Your task to perform on an android device: set the timer Image 0: 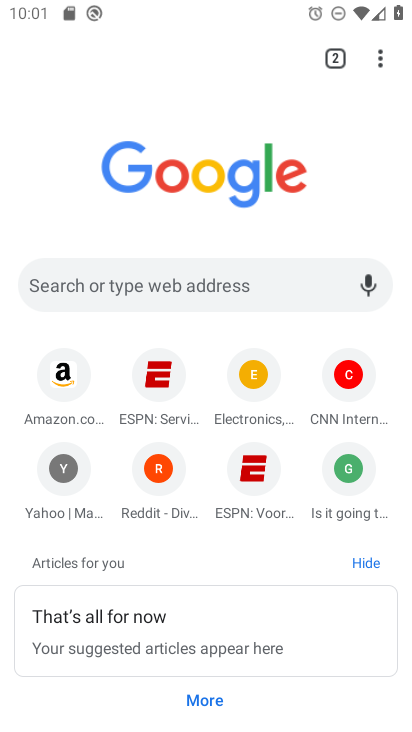
Step 0: press home button
Your task to perform on an android device: set the timer Image 1: 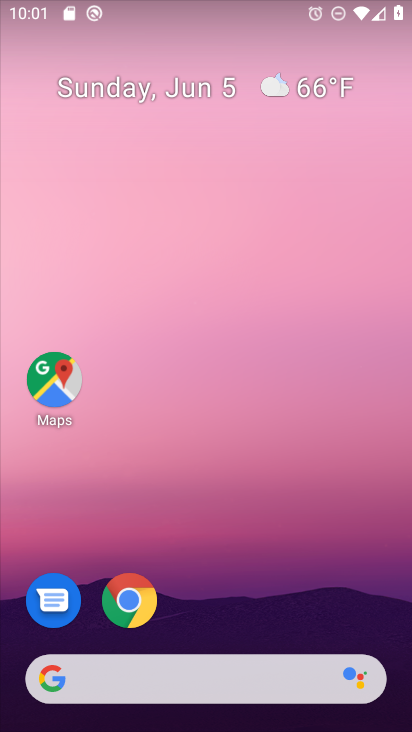
Step 1: drag from (339, 587) to (264, 17)
Your task to perform on an android device: set the timer Image 2: 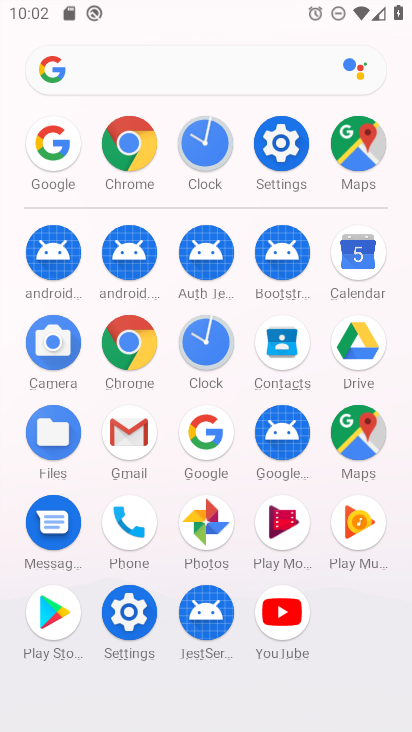
Step 2: click (185, 370)
Your task to perform on an android device: set the timer Image 3: 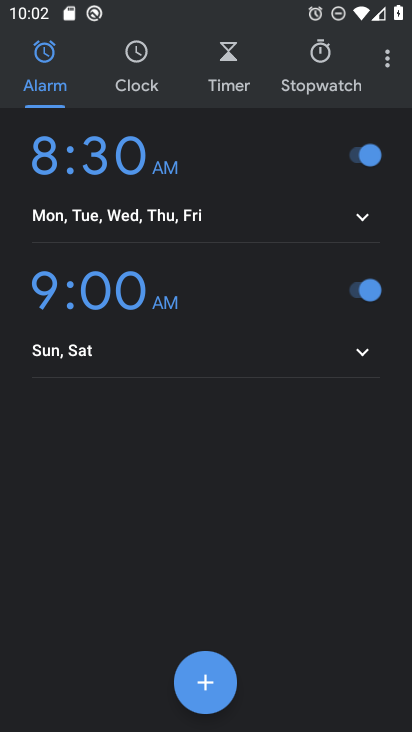
Step 3: click (394, 50)
Your task to perform on an android device: set the timer Image 4: 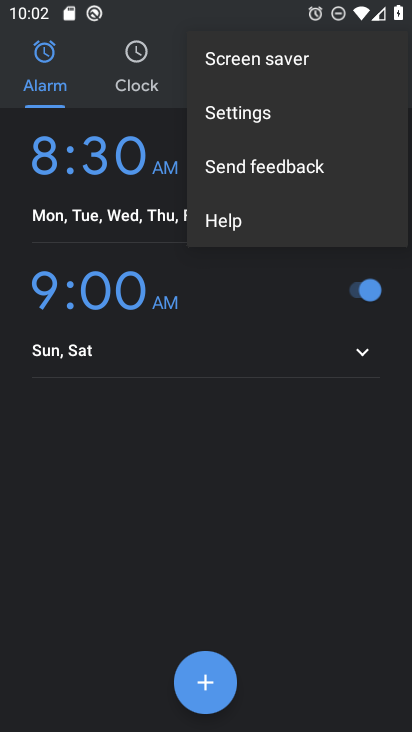
Step 4: click (271, 119)
Your task to perform on an android device: set the timer Image 5: 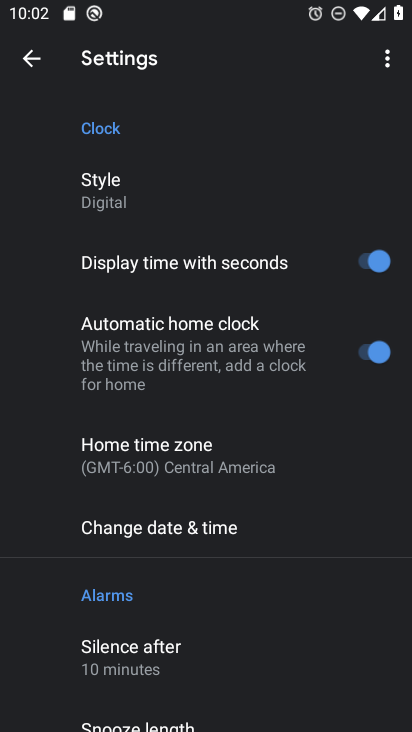
Step 5: click (159, 481)
Your task to perform on an android device: set the timer Image 6: 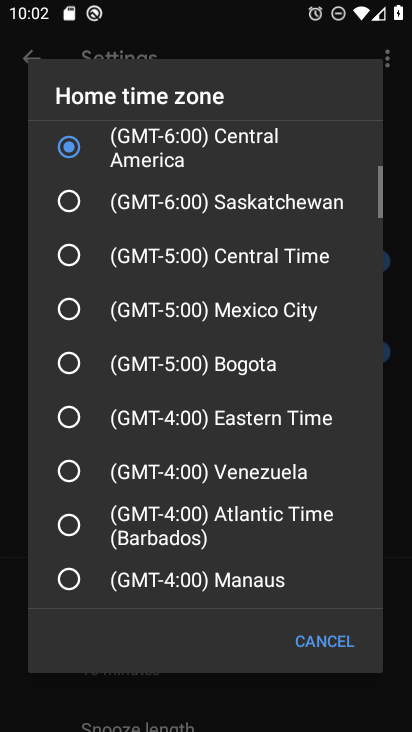
Step 6: click (165, 415)
Your task to perform on an android device: set the timer Image 7: 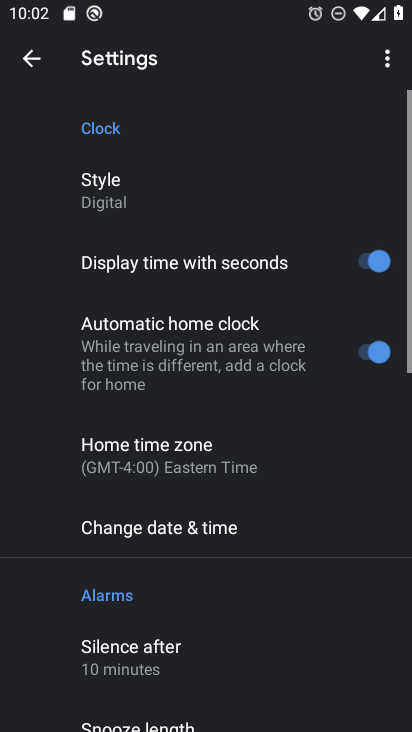
Step 7: task complete